Your task to perform on an android device: Open Yahoo.com Image 0: 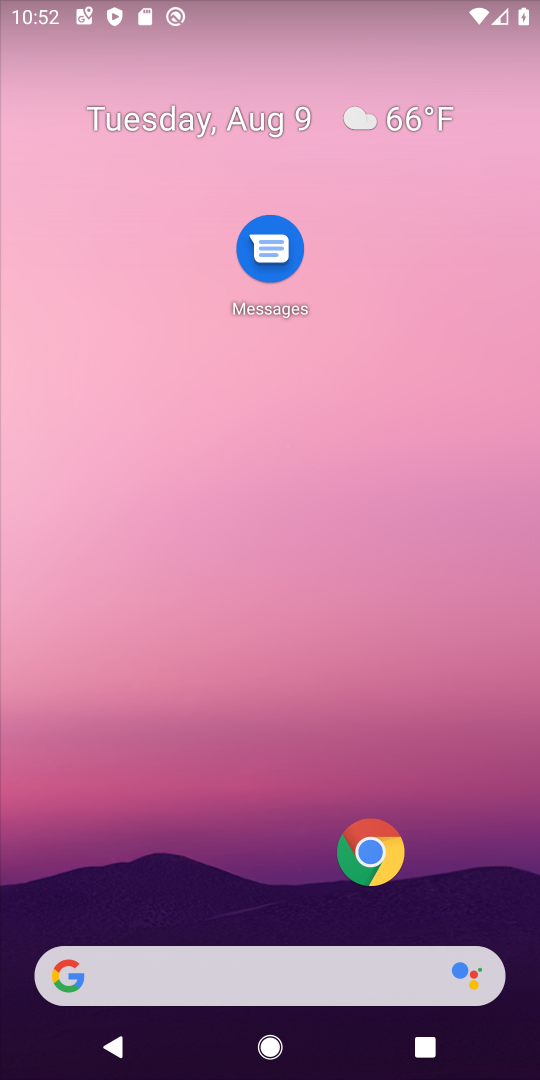
Step 0: click (381, 843)
Your task to perform on an android device: Open Yahoo.com Image 1: 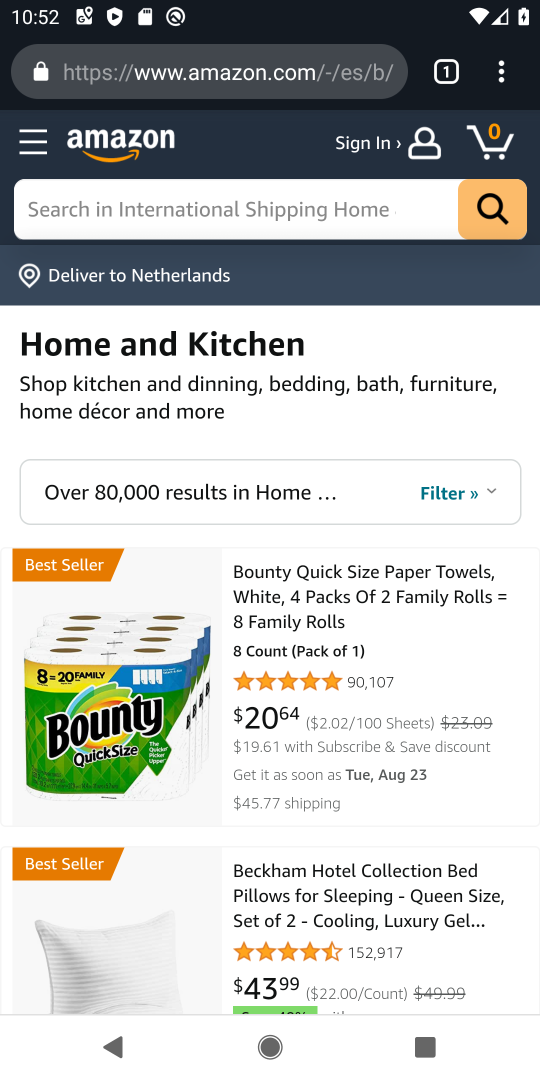
Step 1: click (436, 80)
Your task to perform on an android device: Open Yahoo.com Image 2: 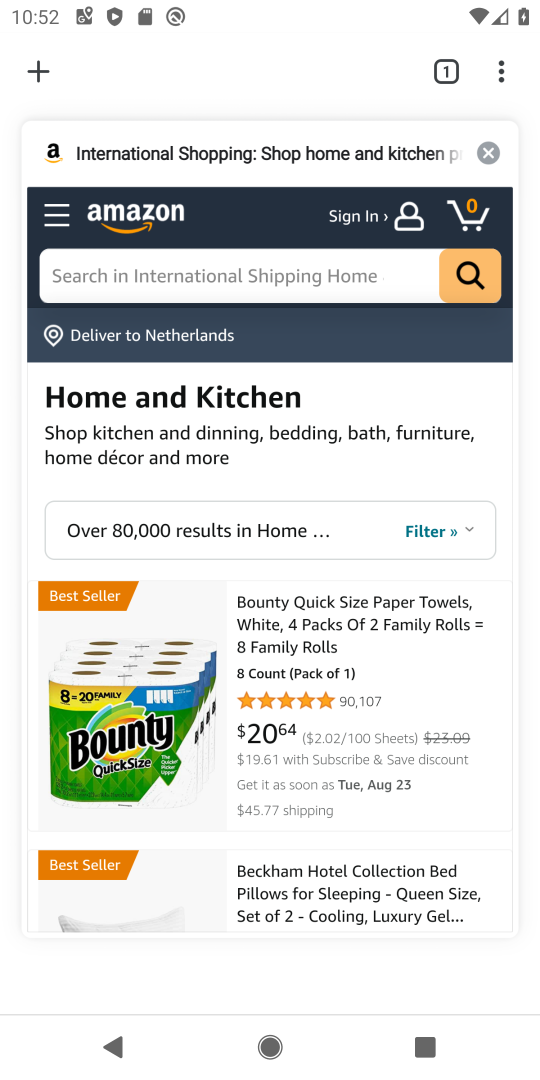
Step 2: click (33, 72)
Your task to perform on an android device: Open Yahoo.com Image 3: 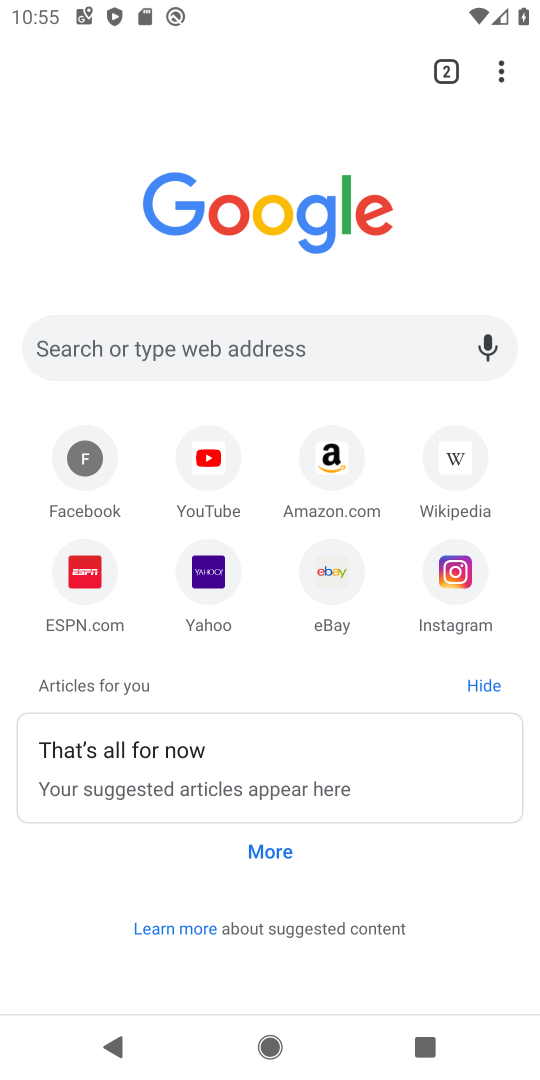
Step 3: click (201, 584)
Your task to perform on an android device: Open Yahoo.com Image 4: 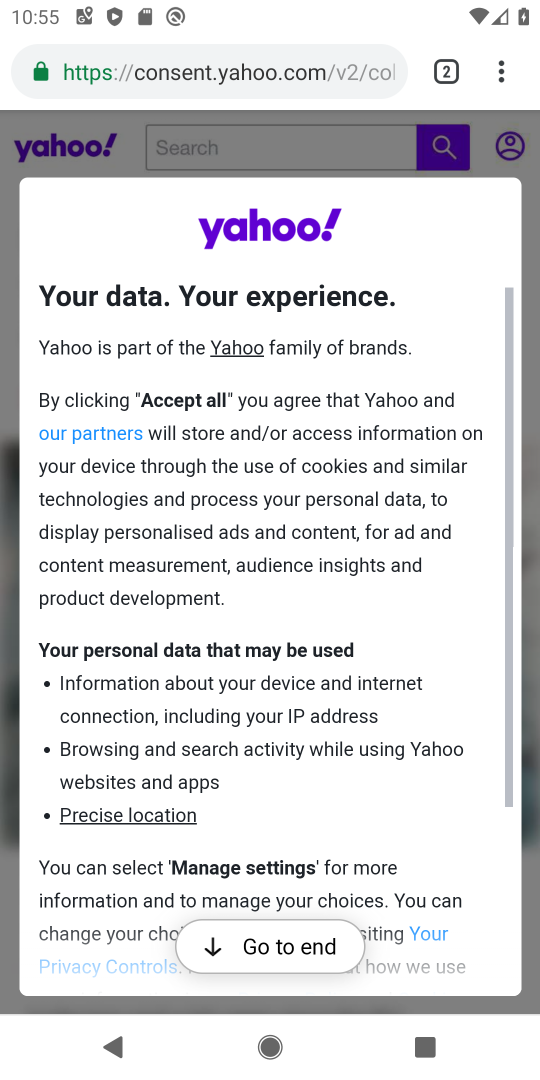
Step 4: task complete